Your task to perform on an android device: Look up the best rated gaming chair on Target. Image 0: 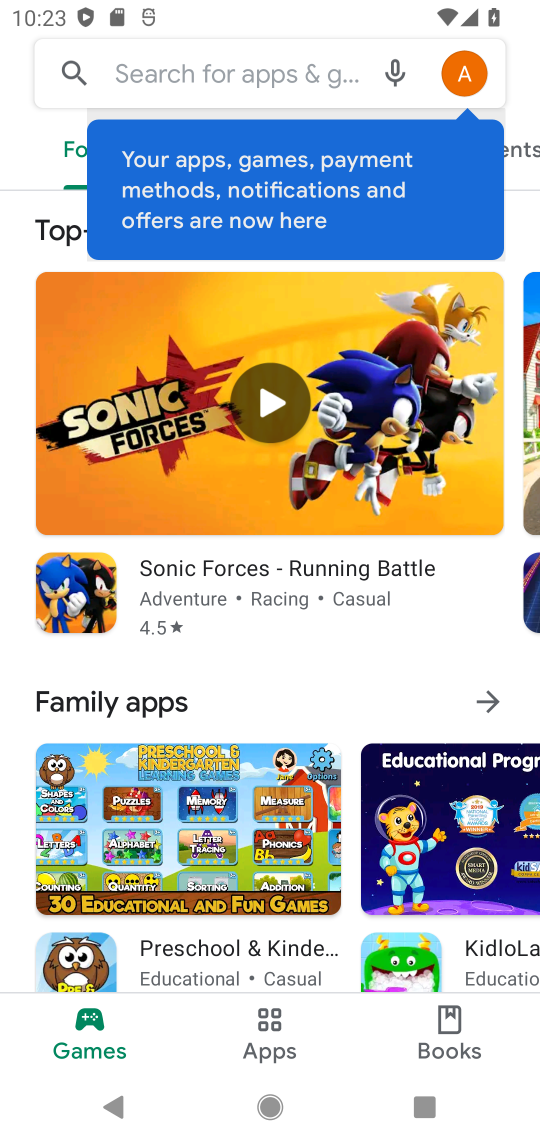
Step 0: press home button
Your task to perform on an android device: Look up the best rated gaming chair on Target. Image 1: 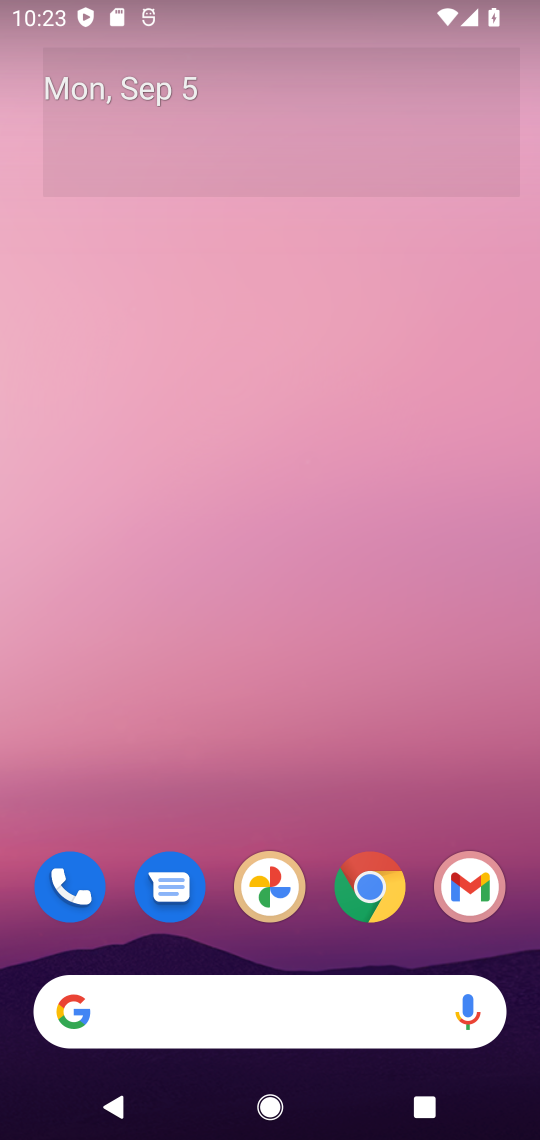
Step 1: click (380, 875)
Your task to perform on an android device: Look up the best rated gaming chair on Target. Image 2: 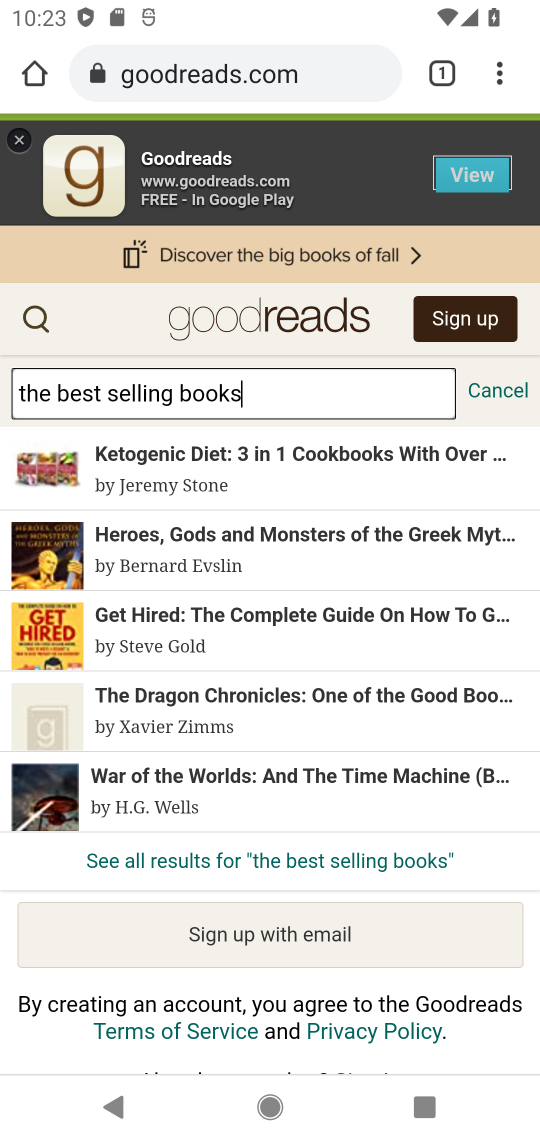
Step 2: click (271, 90)
Your task to perform on an android device: Look up the best rated gaming chair on Target. Image 3: 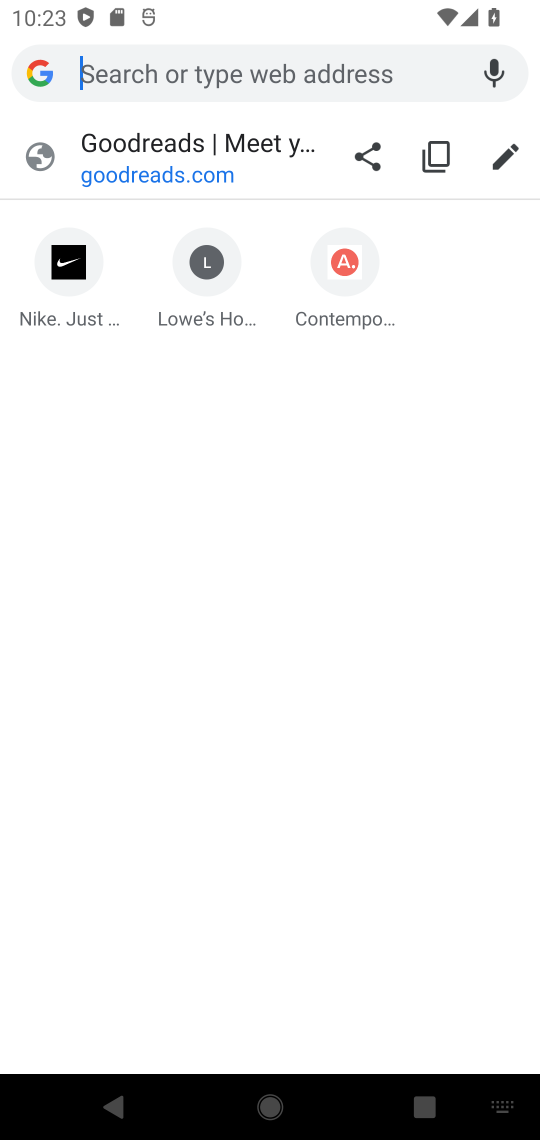
Step 3: type " Target"
Your task to perform on an android device: Look up the best rated gaming chair on Target. Image 4: 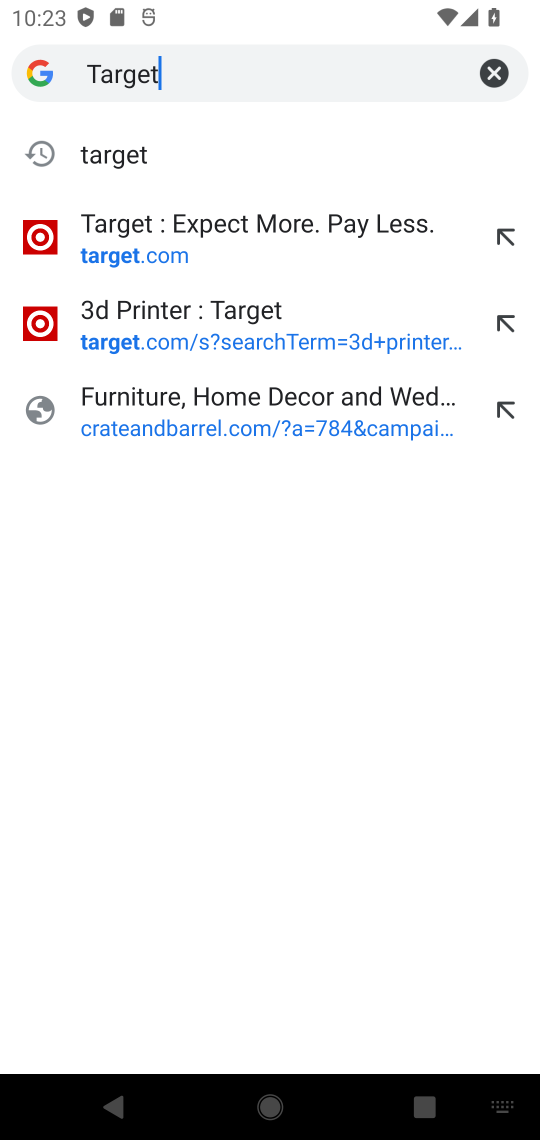
Step 4: click (247, 145)
Your task to perform on an android device: Look up the best rated gaming chair on Target. Image 5: 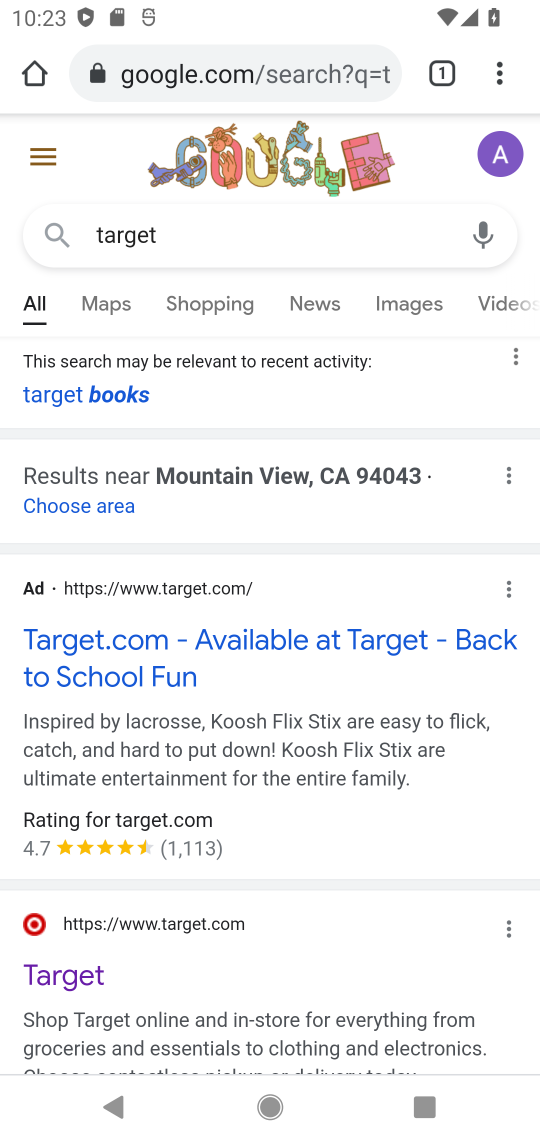
Step 5: click (229, 652)
Your task to perform on an android device: Look up the best rated gaming chair on Target. Image 6: 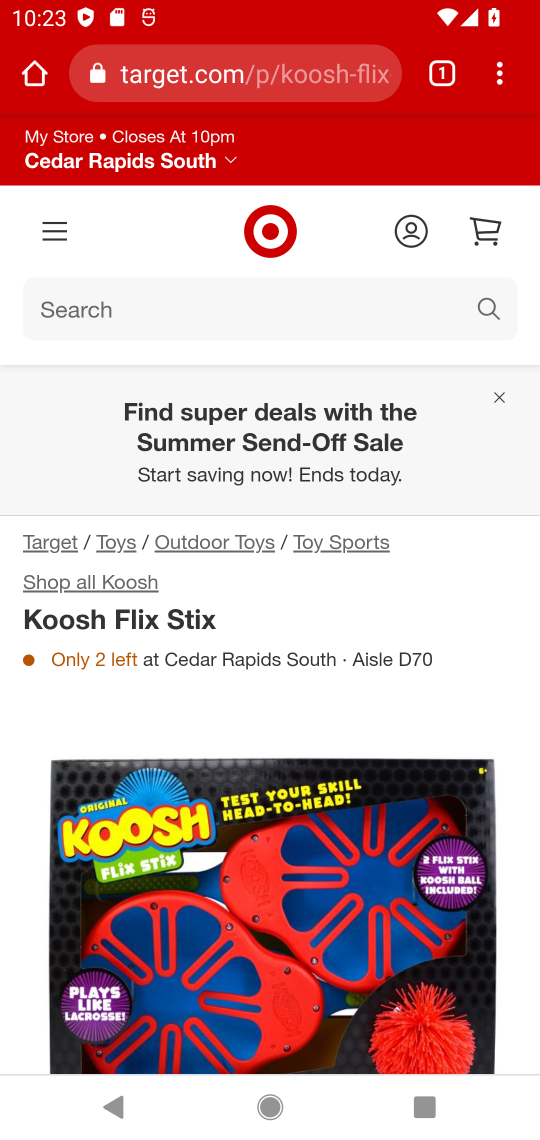
Step 6: click (313, 316)
Your task to perform on an android device: Look up the best rated gaming chair on Target. Image 7: 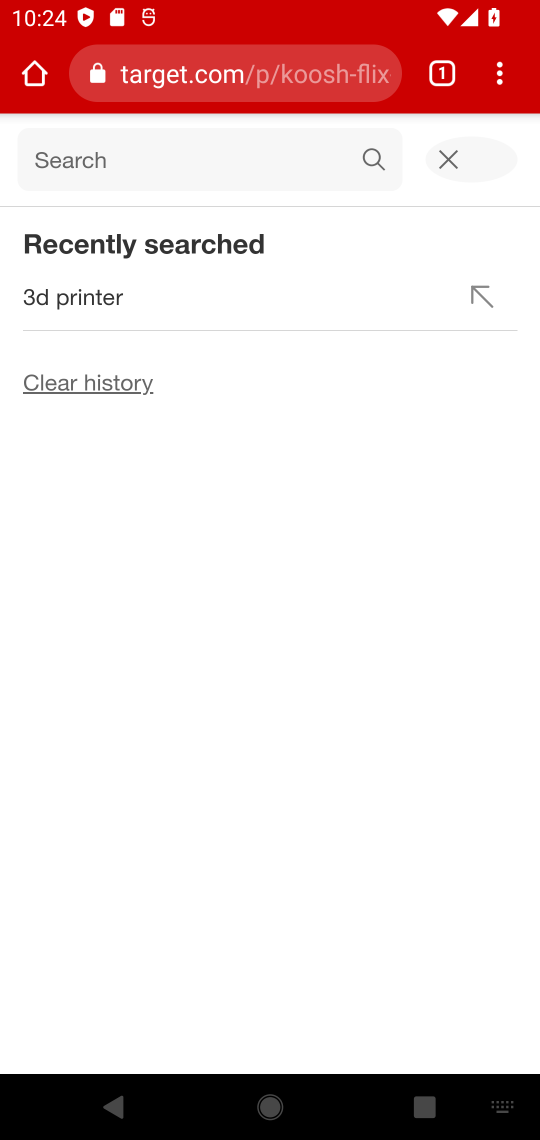
Step 7: type "the best rated gaming chair"
Your task to perform on an android device: Look up the best rated gaming chair on Target. Image 8: 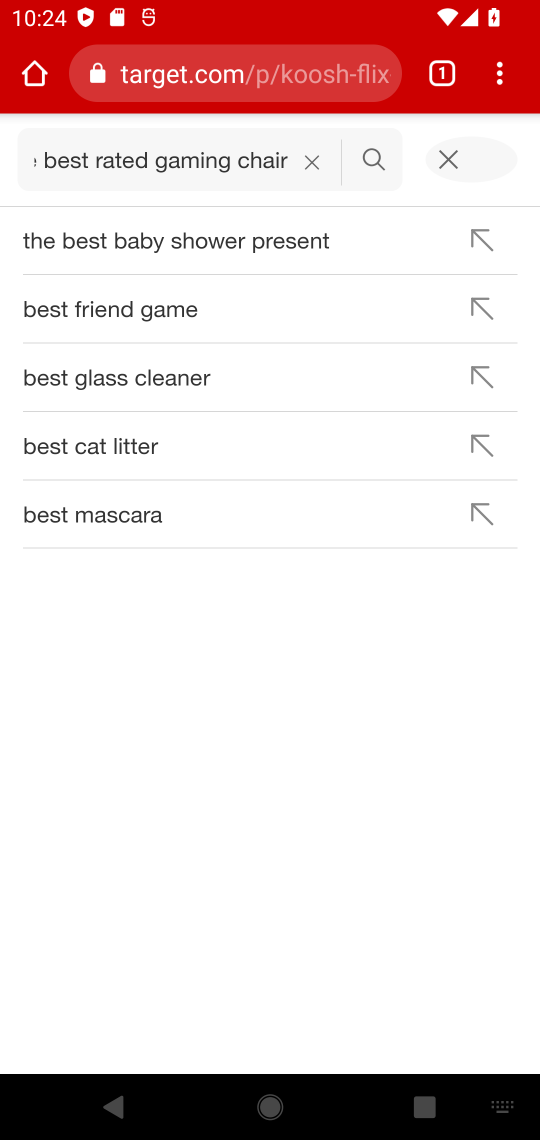
Step 8: click (364, 157)
Your task to perform on an android device: Look up the best rated gaming chair on Target. Image 9: 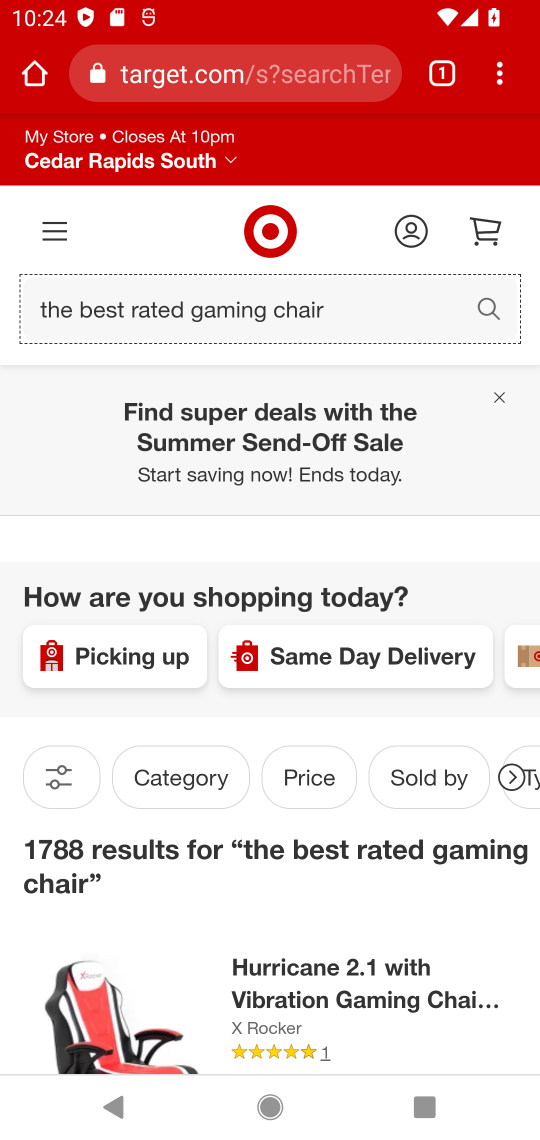
Step 9: task complete